Your task to perform on an android device: Open the calendar app, open the side menu, and click the "Day" option Image 0: 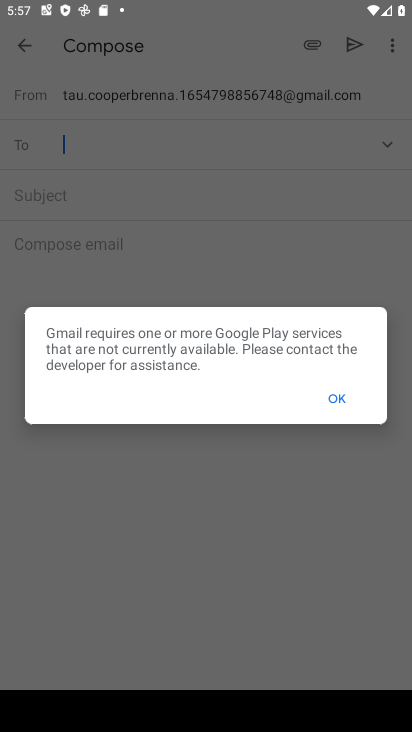
Step 0: press home button
Your task to perform on an android device: Open the calendar app, open the side menu, and click the "Day" option Image 1: 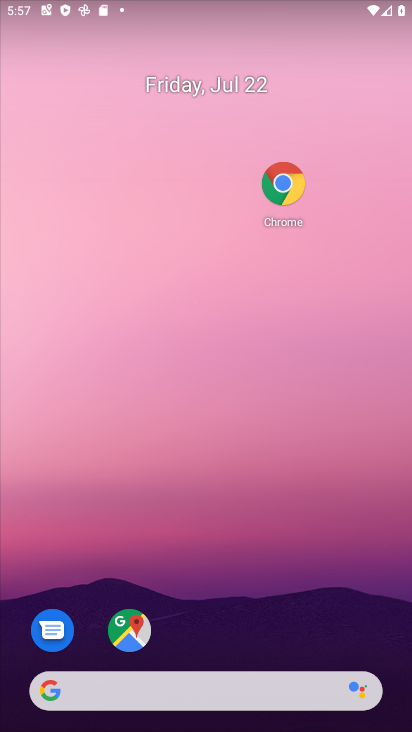
Step 1: drag from (198, 441) to (298, 73)
Your task to perform on an android device: Open the calendar app, open the side menu, and click the "Day" option Image 2: 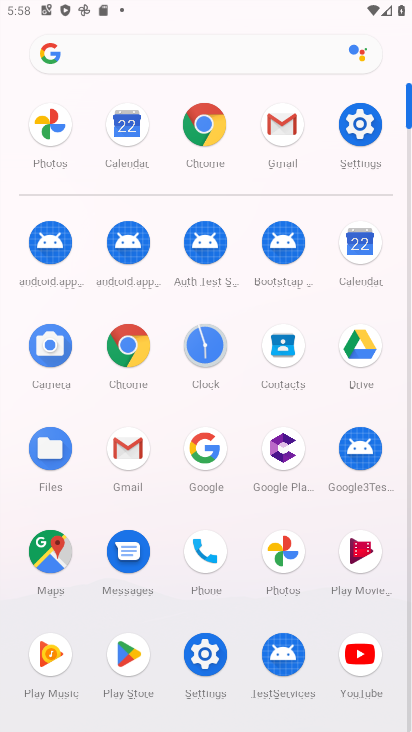
Step 2: click (372, 255)
Your task to perform on an android device: Open the calendar app, open the side menu, and click the "Day" option Image 3: 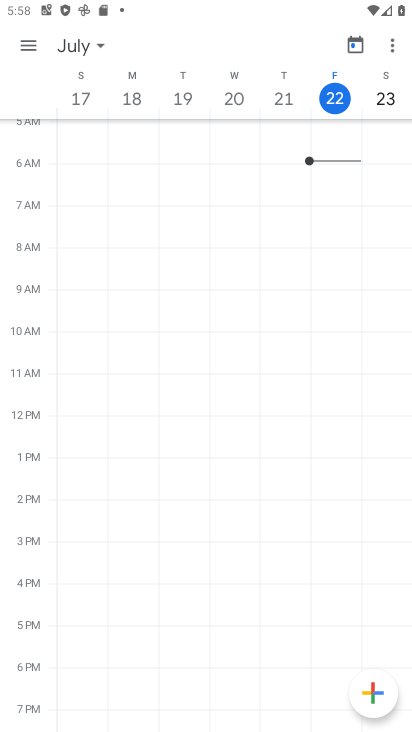
Step 3: click (24, 57)
Your task to perform on an android device: Open the calendar app, open the side menu, and click the "Day" option Image 4: 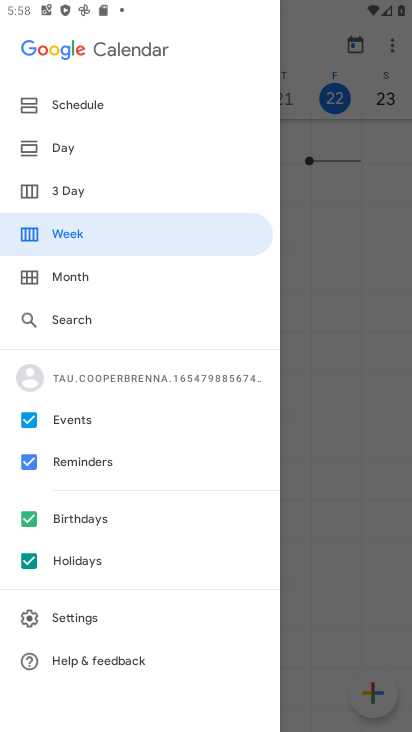
Step 4: click (63, 152)
Your task to perform on an android device: Open the calendar app, open the side menu, and click the "Day" option Image 5: 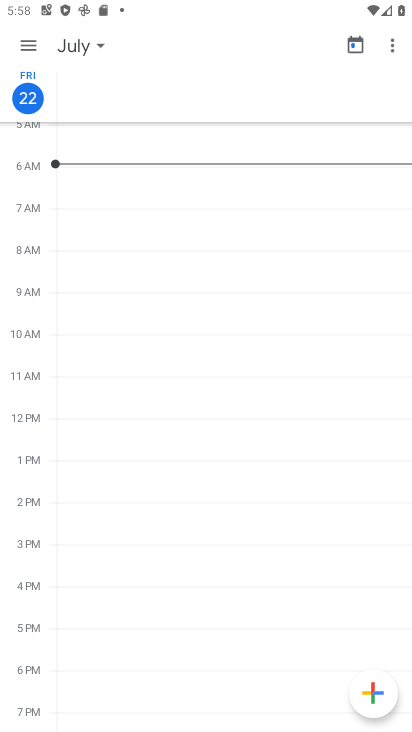
Step 5: task complete